Your task to perform on an android device: Open the calendar app, open the side menu, and click the "Day" option Image 0: 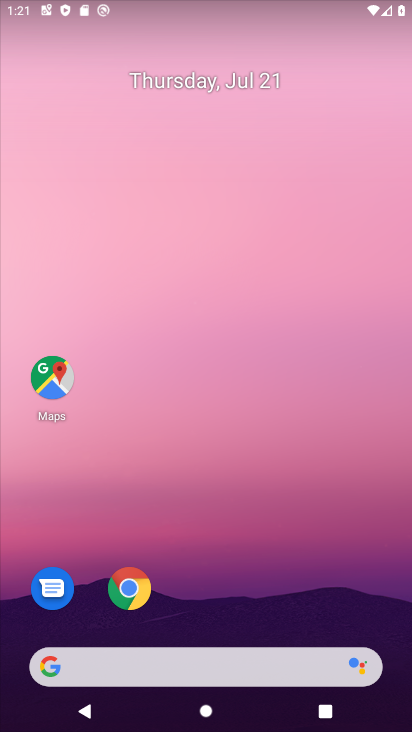
Step 0: drag from (249, 620) to (142, 4)
Your task to perform on an android device: Open the calendar app, open the side menu, and click the "Day" option Image 1: 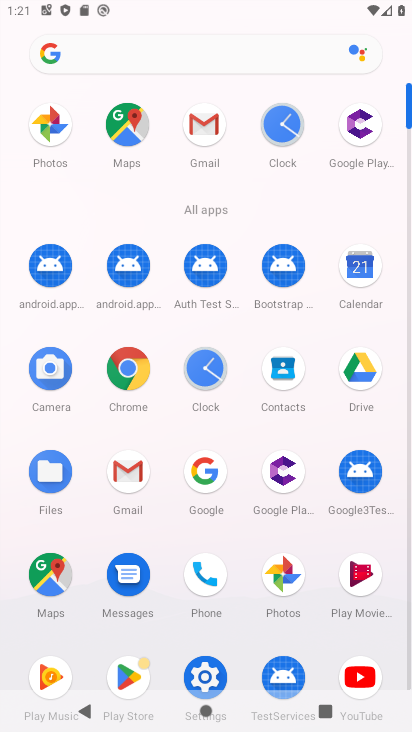
Step 1: click (357, 279)
Your task to perform on an android device: Open the calendar app, open the side menu, and click the "Day" option Image 2: 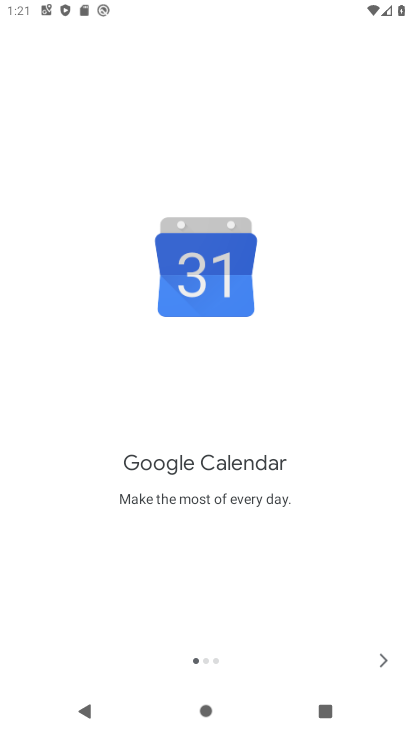
Step 2: click (375, 662)
Your task to perform on an android device: Open the calendar app, open the side menu, and click the "Day" option Image 3: 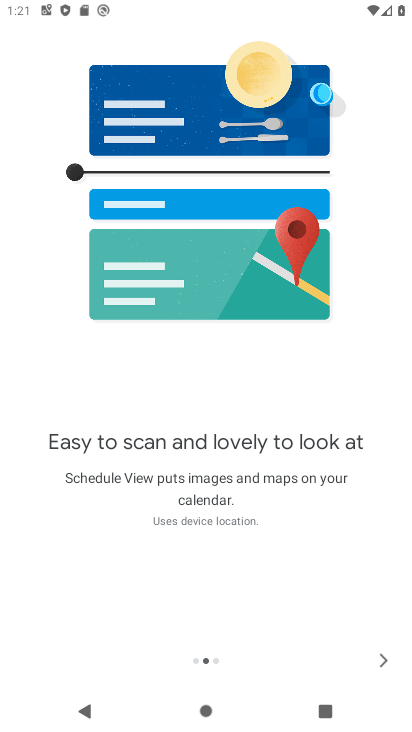
Step 3: click (375, 662)
Your task to perform on an android device: Open the calendar app, open the side menu, and click the "Day" option Image 4: 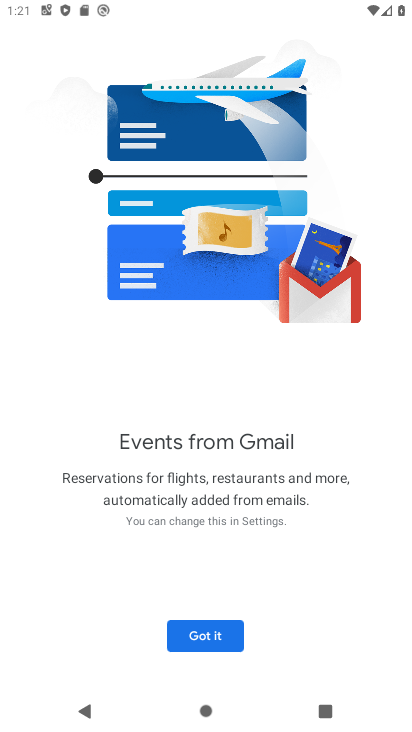
Step 4: click (212, 640)
Your task to perform on an android device: Open the calendar app, open the side menu, and click the "Day" option Image 5: 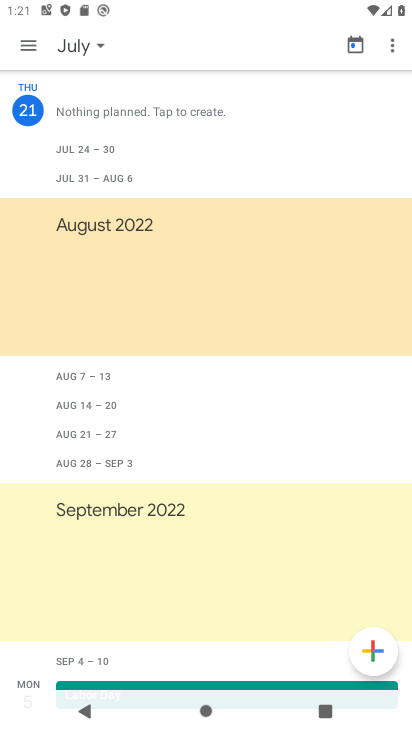
Step 5: click (27, 47)
Your task to perform on an android device: Open the calendar app, open the side menu, and click the "Day" option Image 6: 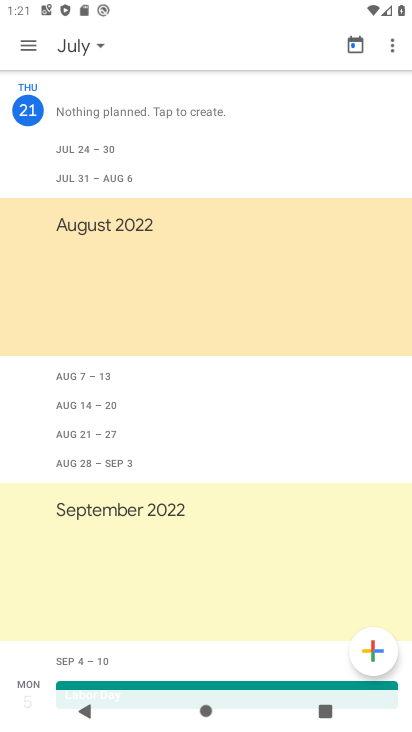
Step 6: click (31, 49)
Your task to perform on an android device: Open the calendar app, open the side menu, and click the "Day" option Image 7: 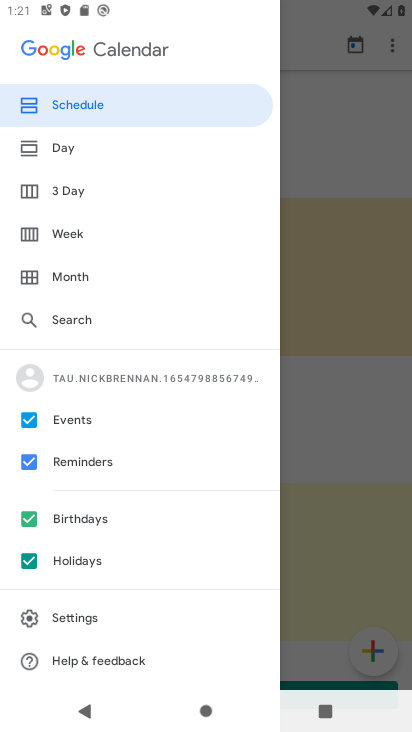
Step 7: click (62, 145)
Your task to perform on an android device: Open the calendar app, open the side menu, and click the "Day" option Image 8: 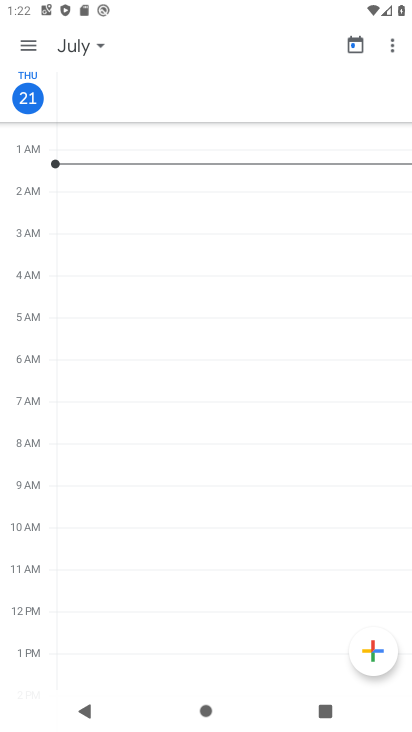
Step 8: task complete